Your task to perform on an android device: turn off sleep mode Image 0: 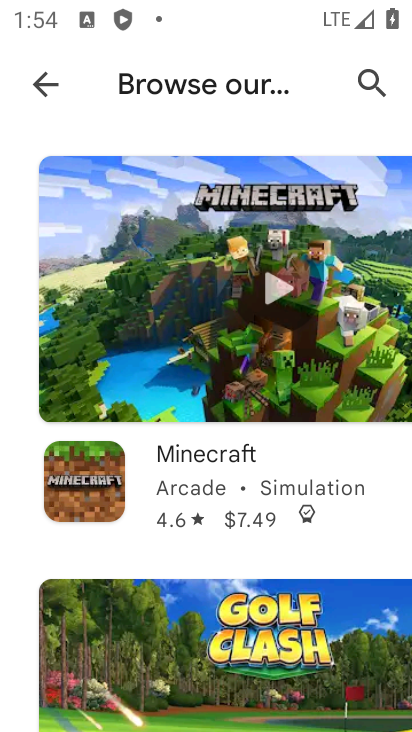
Step 0: press home button
Your task to perform on an android device: turn off sleep mode Image 1: 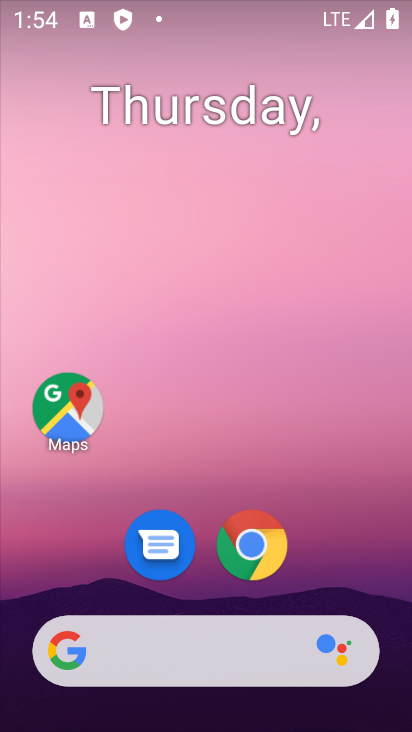
Step 1: drag from (180, 667) to (199, 4)
Your task to perform on an android device: turn off sleep mode Image 2: 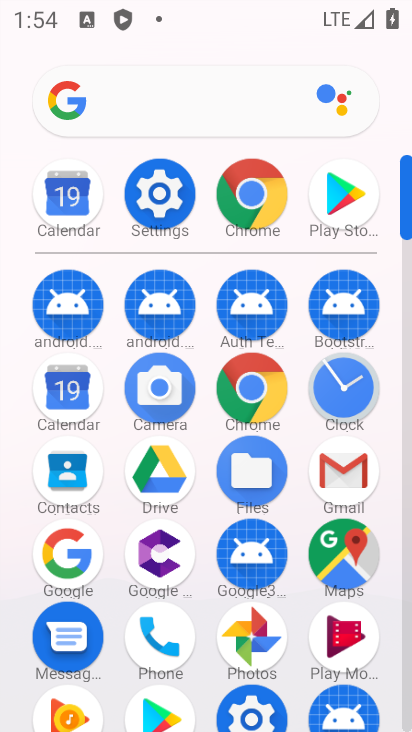
Step 2: click (155, 194)
Your task to perform on an android device: turn off sleep mode Image 3: 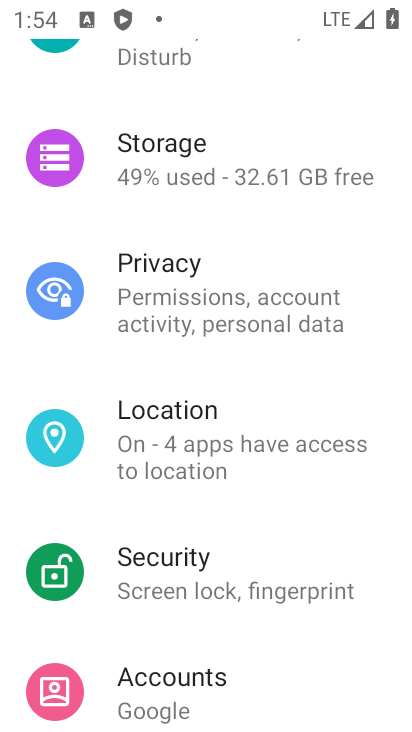
Step 3: drag from (222, 159) to (225, 723)
Your task to perform on an android device: turn off sleep mode Image 4: 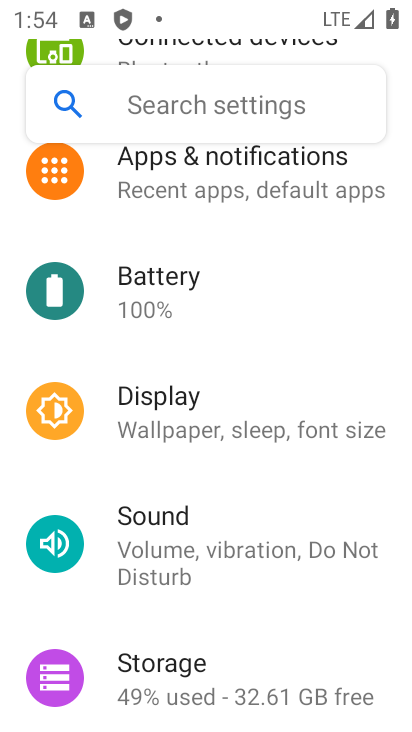
Step 4: drag from (231, 225) to (271, 676)
Your task to perform on an android device: turn off sleep mode Image 5: 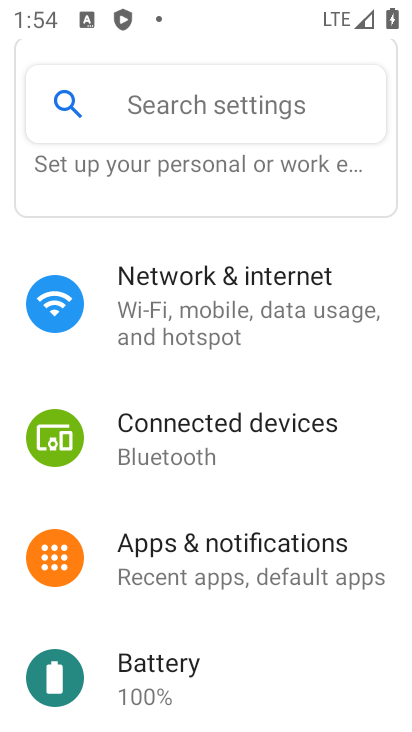
Step 5: drag from (272, 676) to (258, 210)
Your task to perform on an android device: turn off sleep mode Image 6: 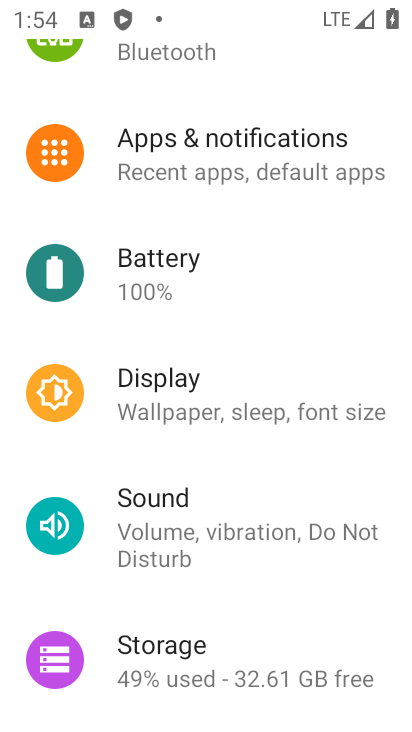
Step 6: click (283, 408)
Your task to perform on an android device: turn off sleep mode Image 7: 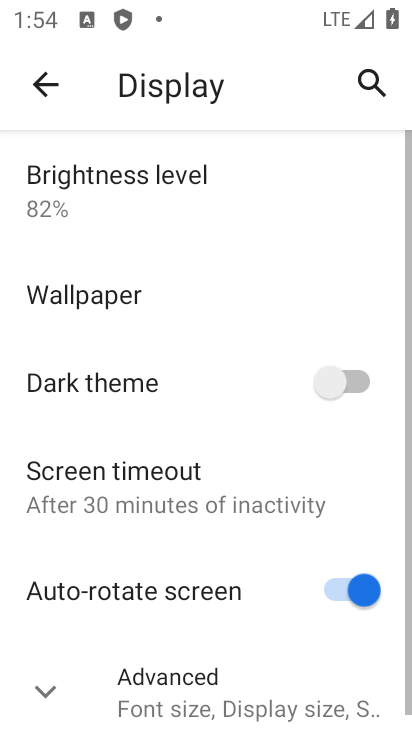
Step 7: task complete